Your task to perform on an android device: Open Google Image 0: 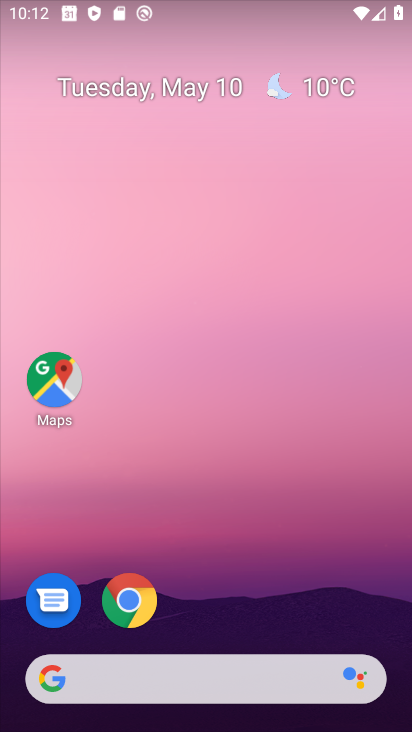
Step 0: drag from (269, 606) to (302, 128)
Your task to perform on an android device: Open Google Image 1: 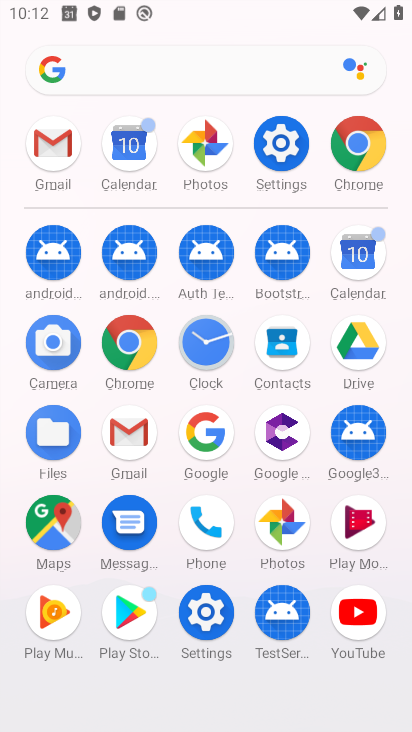
Step 1: click (210, 431)
Your task to perform on an android device: Open Google Image 2: 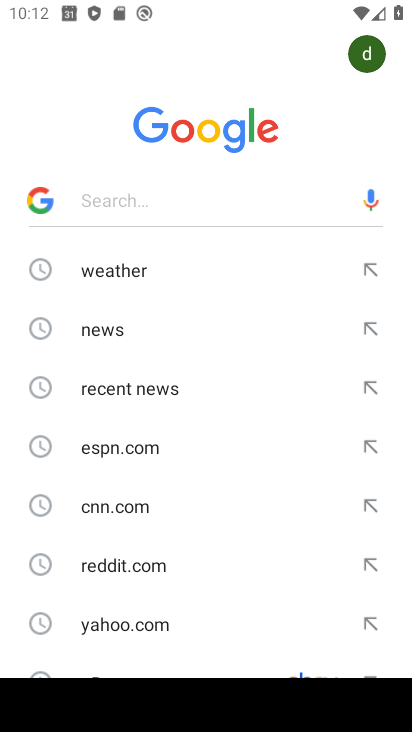
Step 2: task complete